Your task to perform on an android device: turn off translation in the chrome app Image 0: 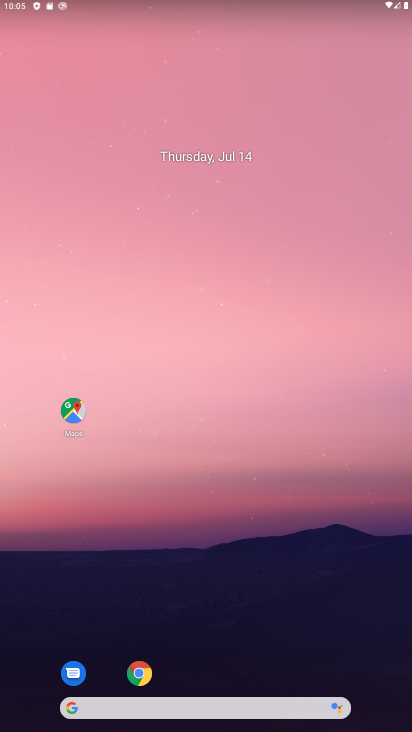
Step 0: click (134, 676)
Your task to perform on an android device: turn off translation in the chrome app Image 1: 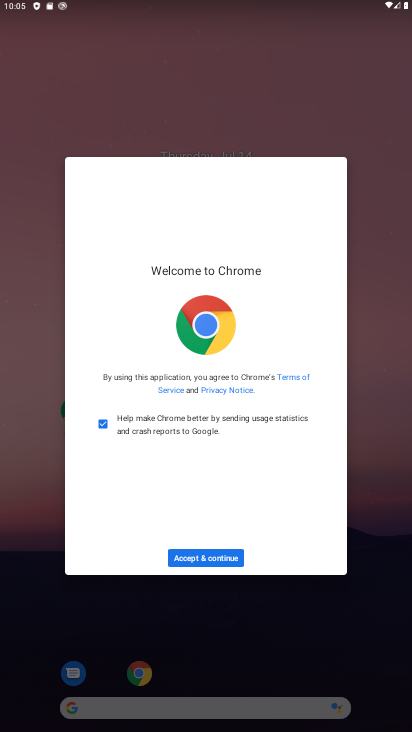
Step 1: click (179, 547)
Your task to perform on an android device: turn off translation in the chrome app Image 2: 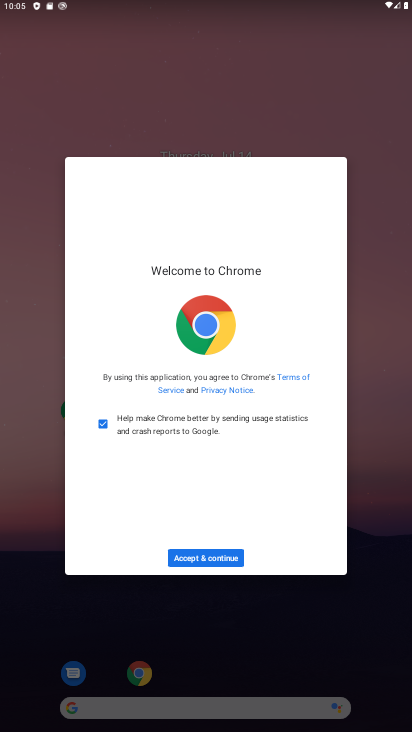
Step 2: click (184, 558)
Your task to perform on an android device: turn off translation in the chrome app Image 3: 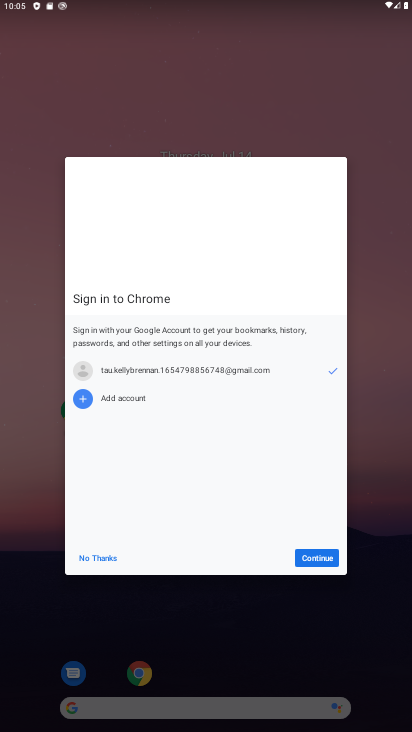
Step 3: click (315, 552)
Your task to perform on an android device: turn off translation in the chrome app Image 4: 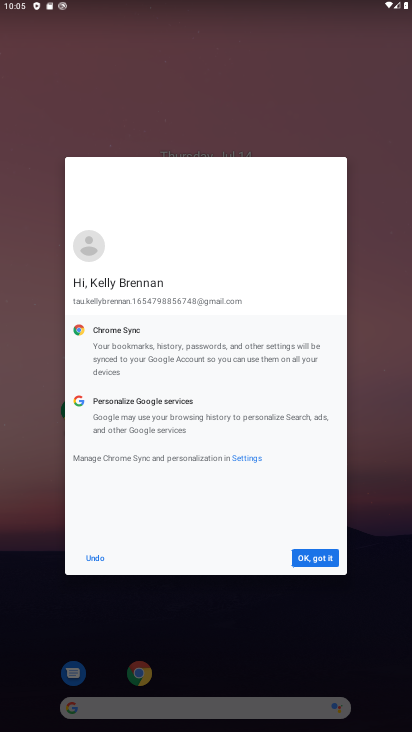
Step 4: click (315, 552)
Your task to perform on an android device: turn off translation in the chrome app Image 5: 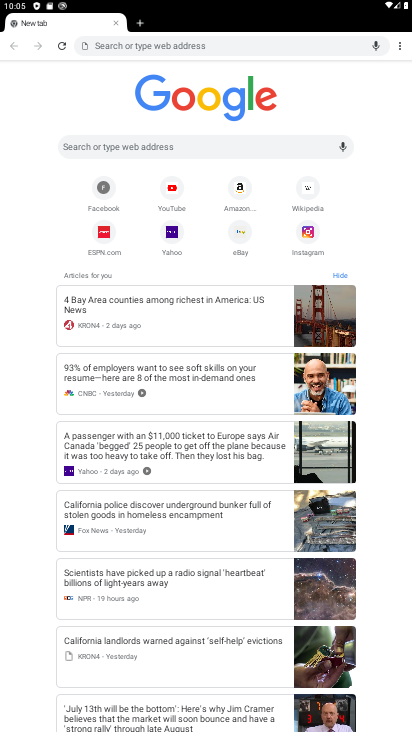
Step 5: click (405, 50)
Your task to perform on an android device: turn off translation in the chrome app Image 6: 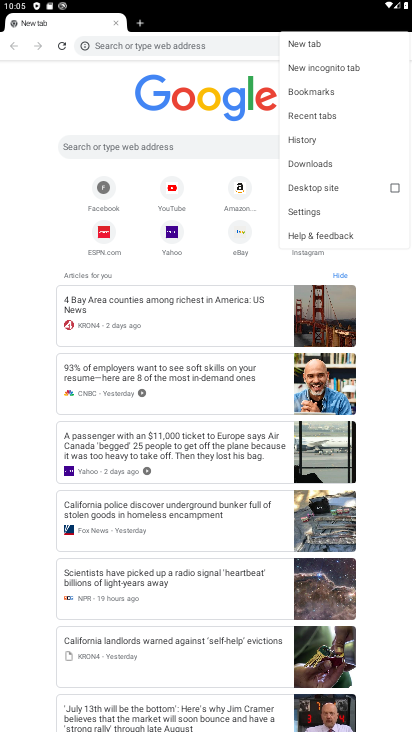
Step 6: click (313, 206)
Your task to perform on an android device: turn off translation in the chrome app Image 7: 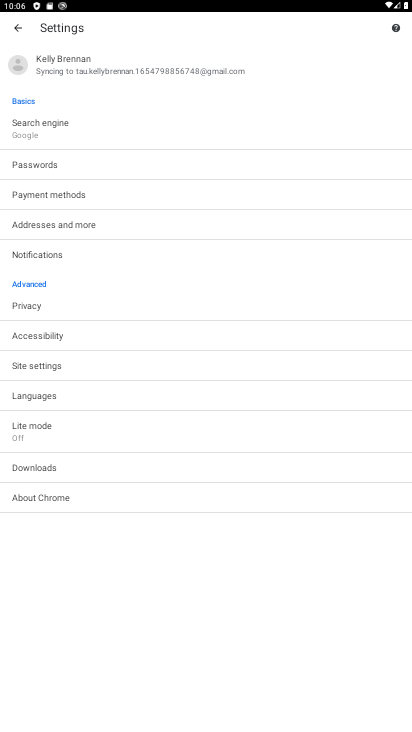
Step 7: click (40, 400)
Your task to perform on an android device: turn off translation in the chrome app Image 8: 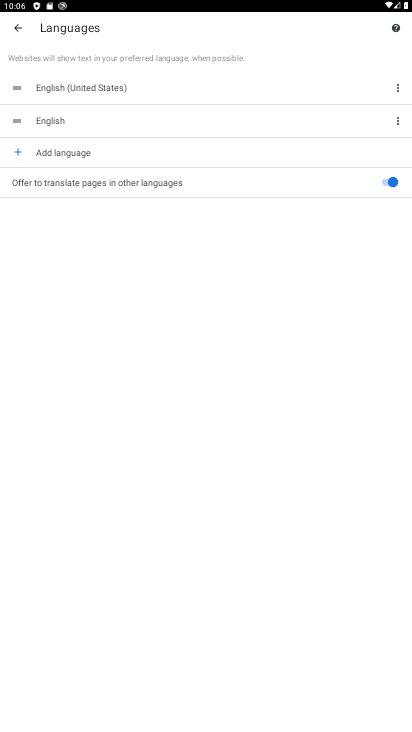
Step 8: click (392, 179)
Your task to perform on an android device: turn off translation in the chrome app Image 9: 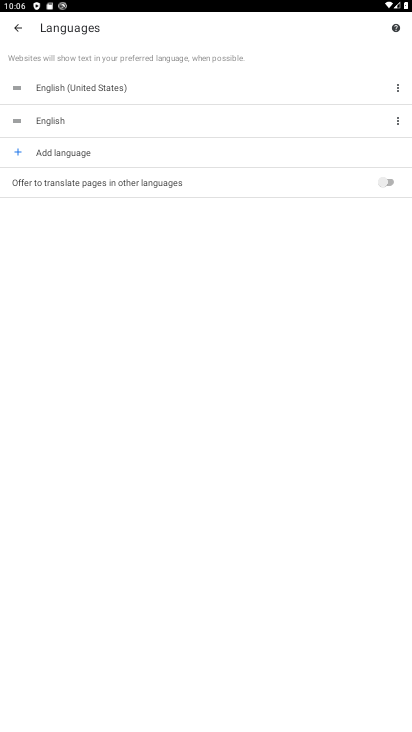
Step 9: task complete